Your task to perform on an android device: Add "duracell triple a" to the cart on bestbuy, then select checkout. Image 0: 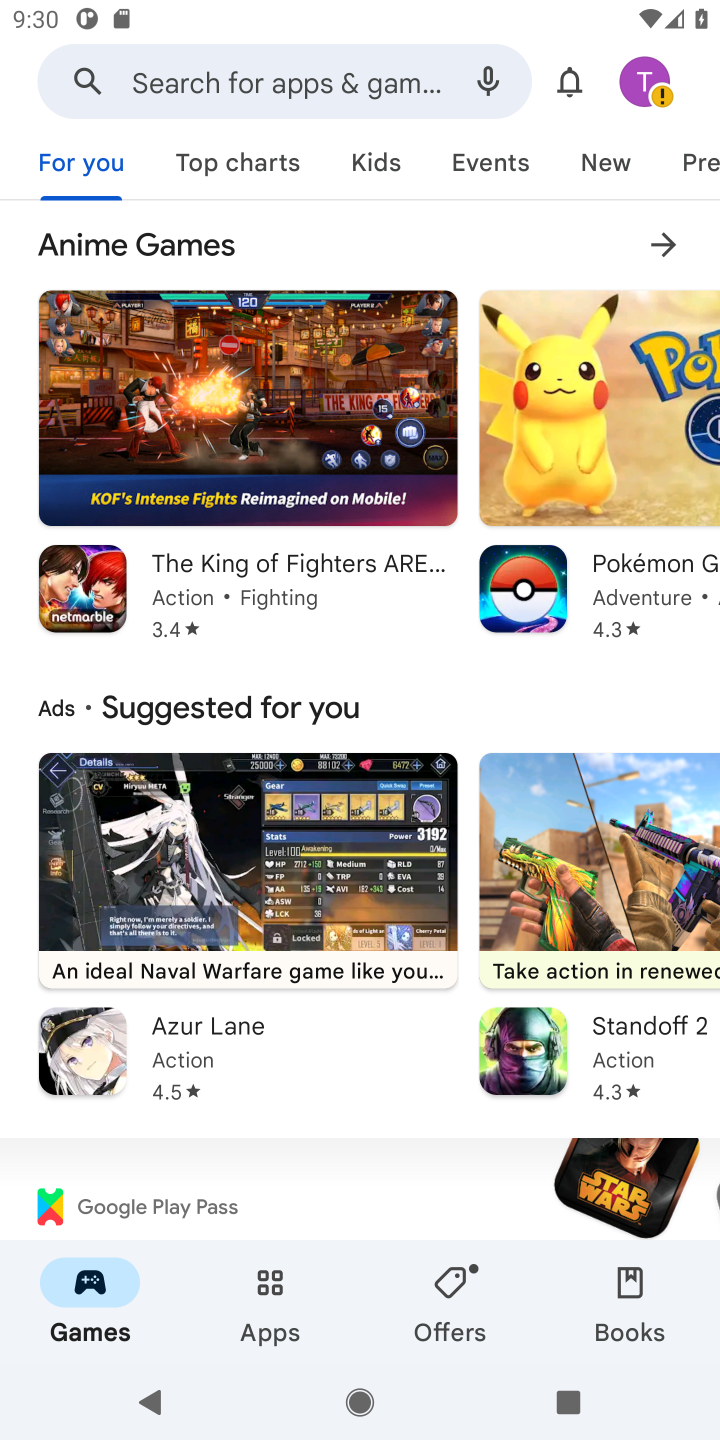
Step 0: press home button
Your task to perform on an android device: Add "duracell triple a" to the cart on bestbuy, then select checkout. Image 1: 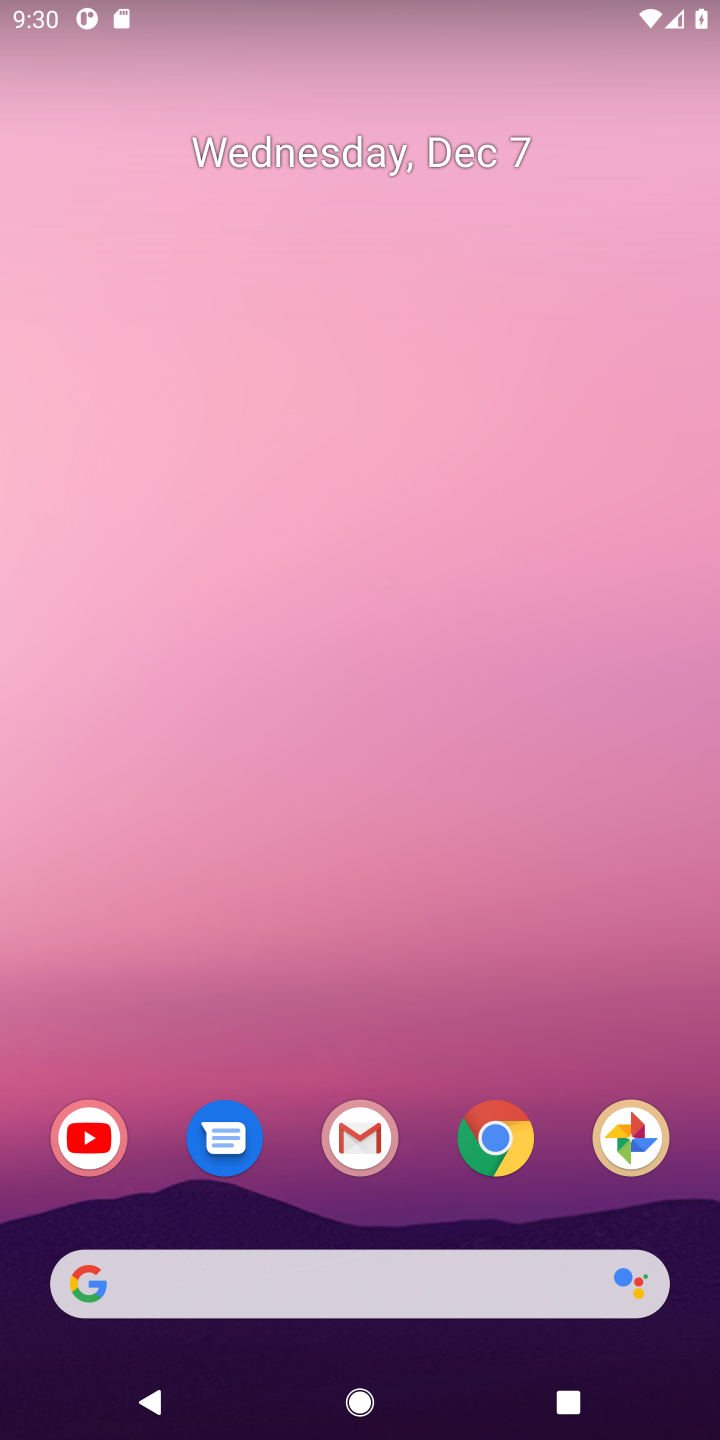
Step 1: click (134, 1283)
Your task to perform on an android device: Add "duracell triple a" to the cart on bestbuy, then select checkout. Image 2: 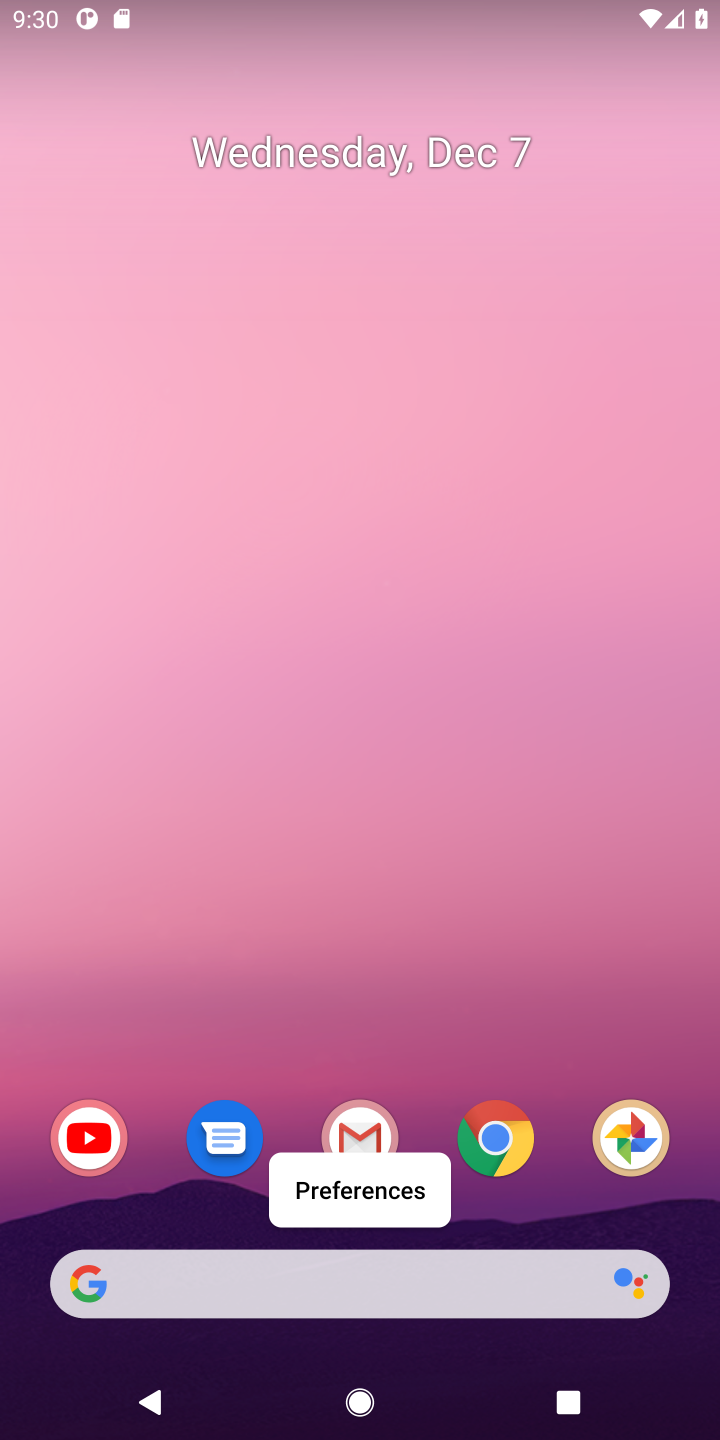
Step 2: click (114, 1286)
Your task to perform on an android device: Add "duracell triple a" to the cart on bestbuy, then select checkout. Image 3: 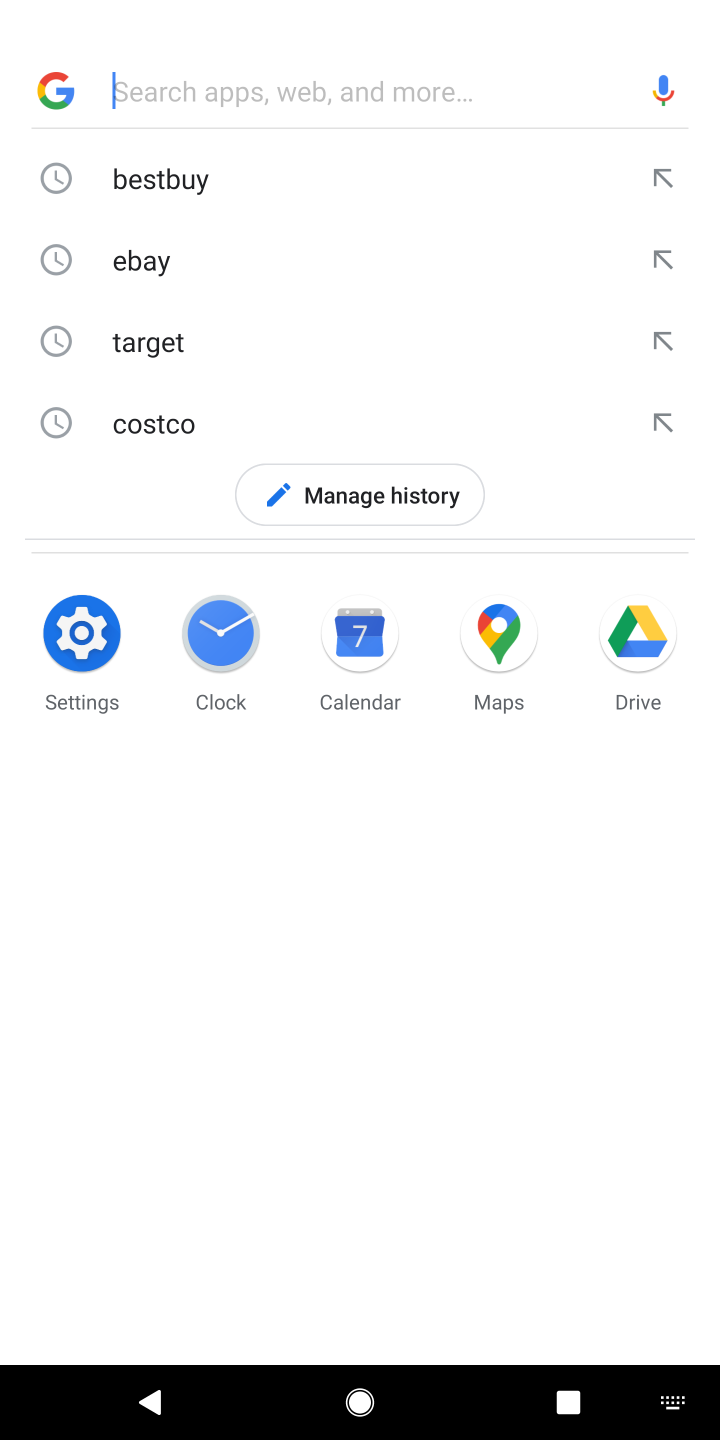
Step 3: type "bestbuy"
Your task to perform on an android device: Add "duracell triple a" to the cart on bestbuy, then select checkout. Image 4: 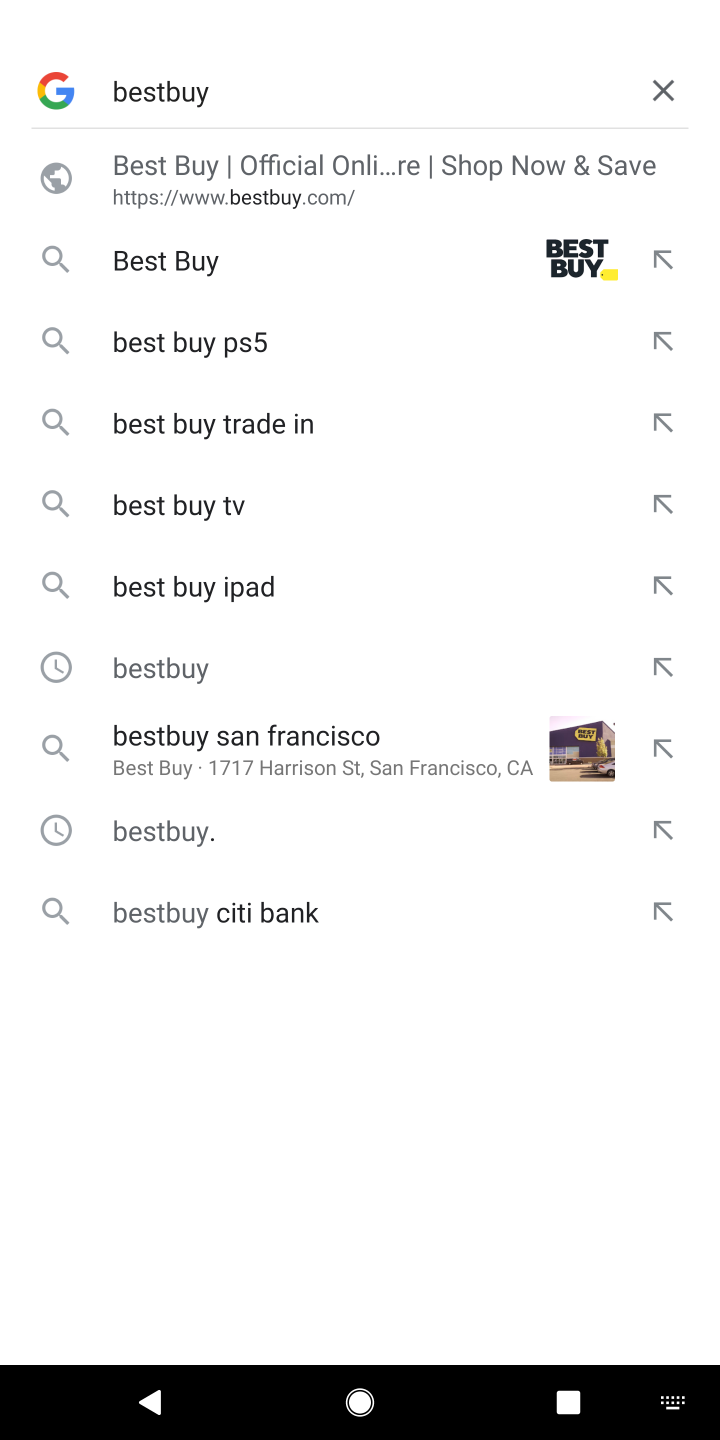
Step 4: press enter
Your task to perform on an android device: Add "duracell triple a" to the cart on bestbuy, then select checkout. Image 5: 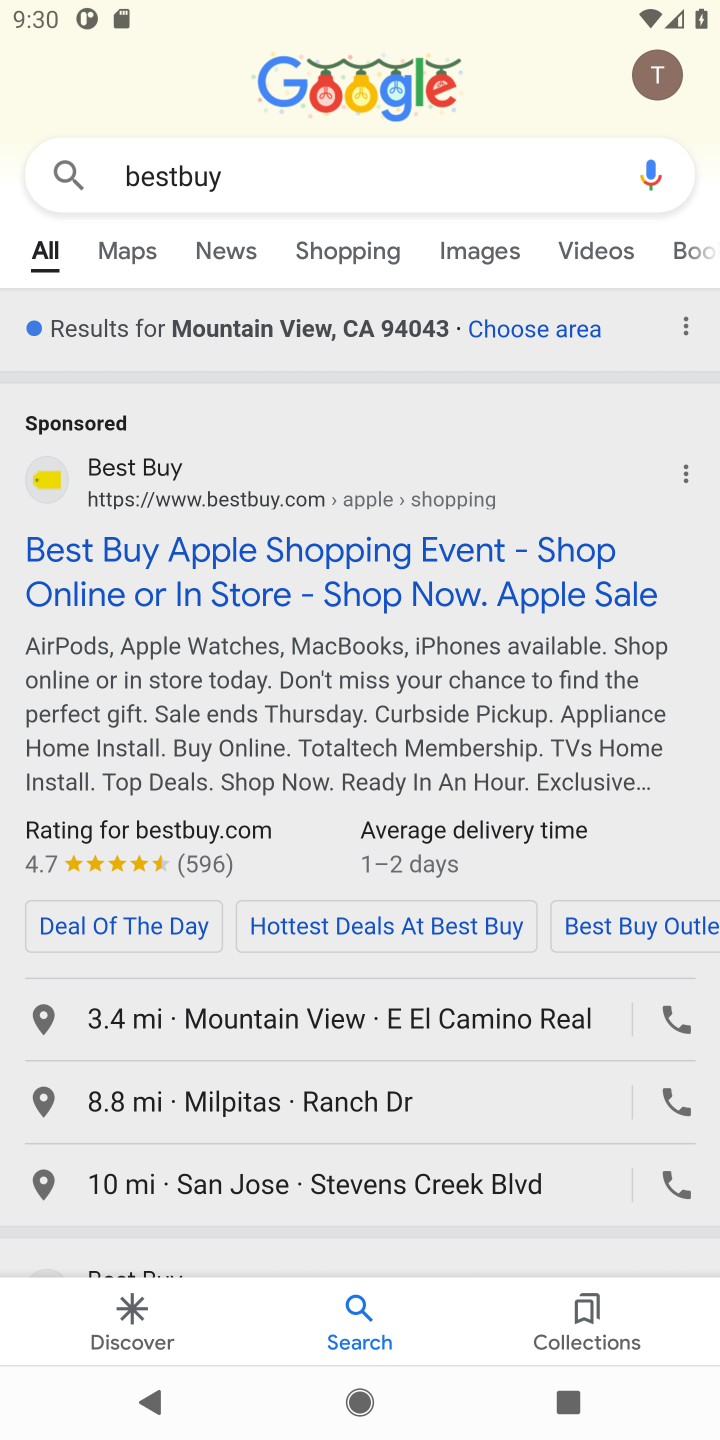
Step 5: click (195, 553)
Your task to perform on an android device: Add "duracell triple a" to the cart on bestbuy, then select checkout. Image 6: 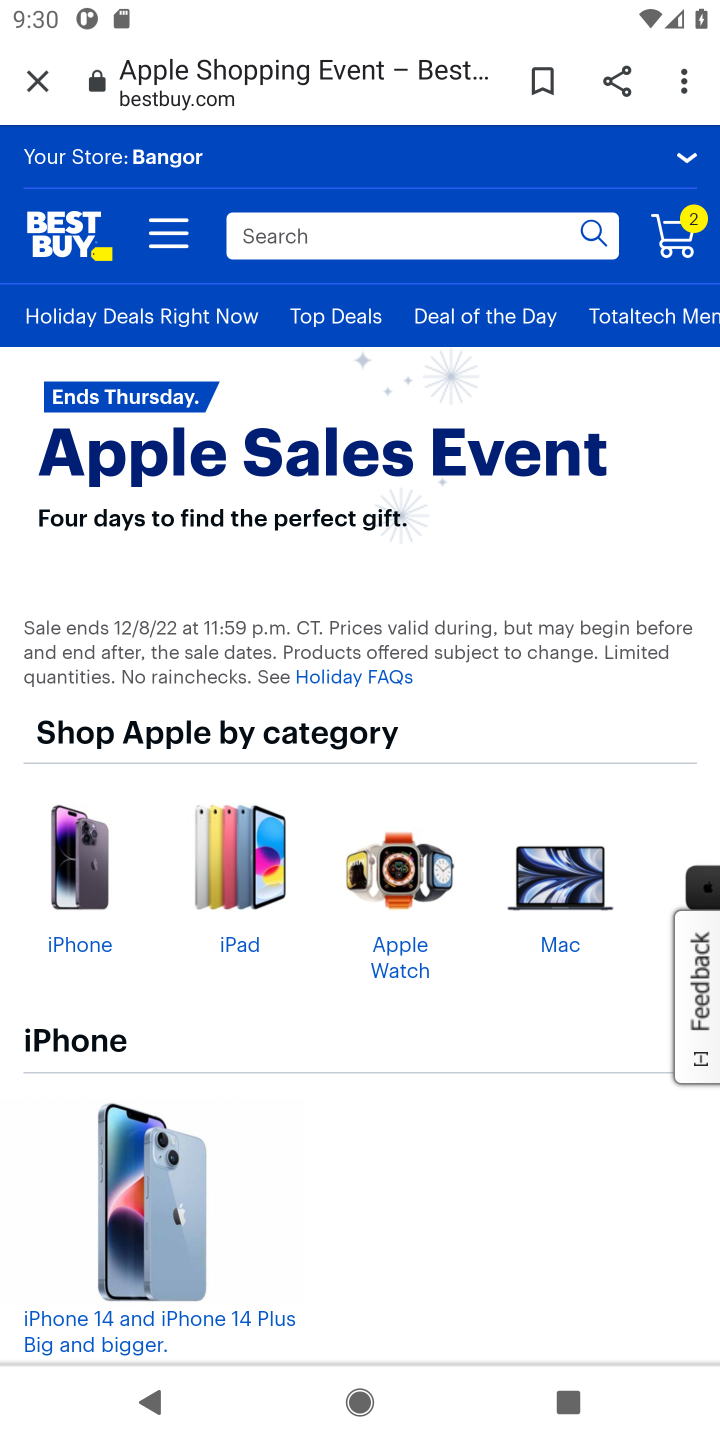
Step 6: click (286, 234)
Your task to perform on an android device: Add "duracell triple a" to the cart on bestbuy, then select checkout. Image 7: 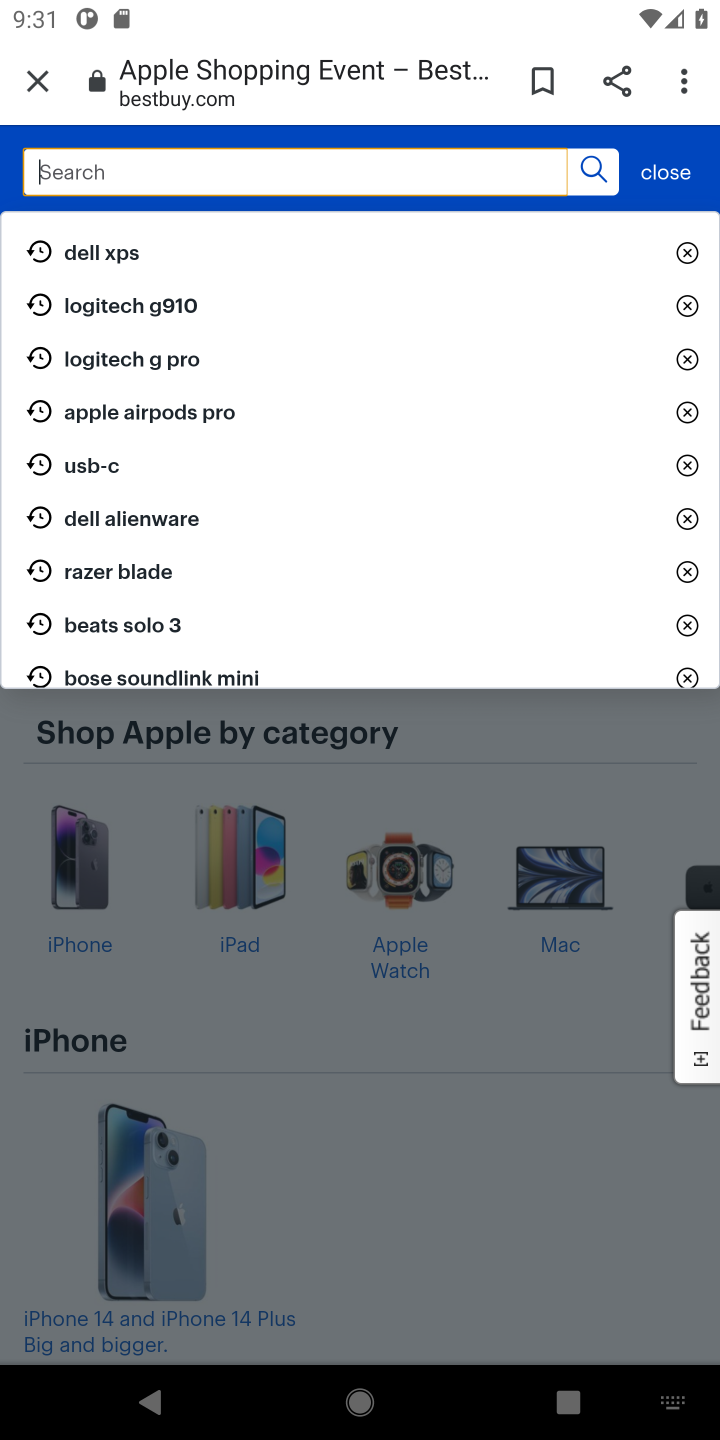
Step 7: press enter
Your task to perform on an android device: Add "duracell triple a" to the cart on bestbuy, then select checkout. Image 8: 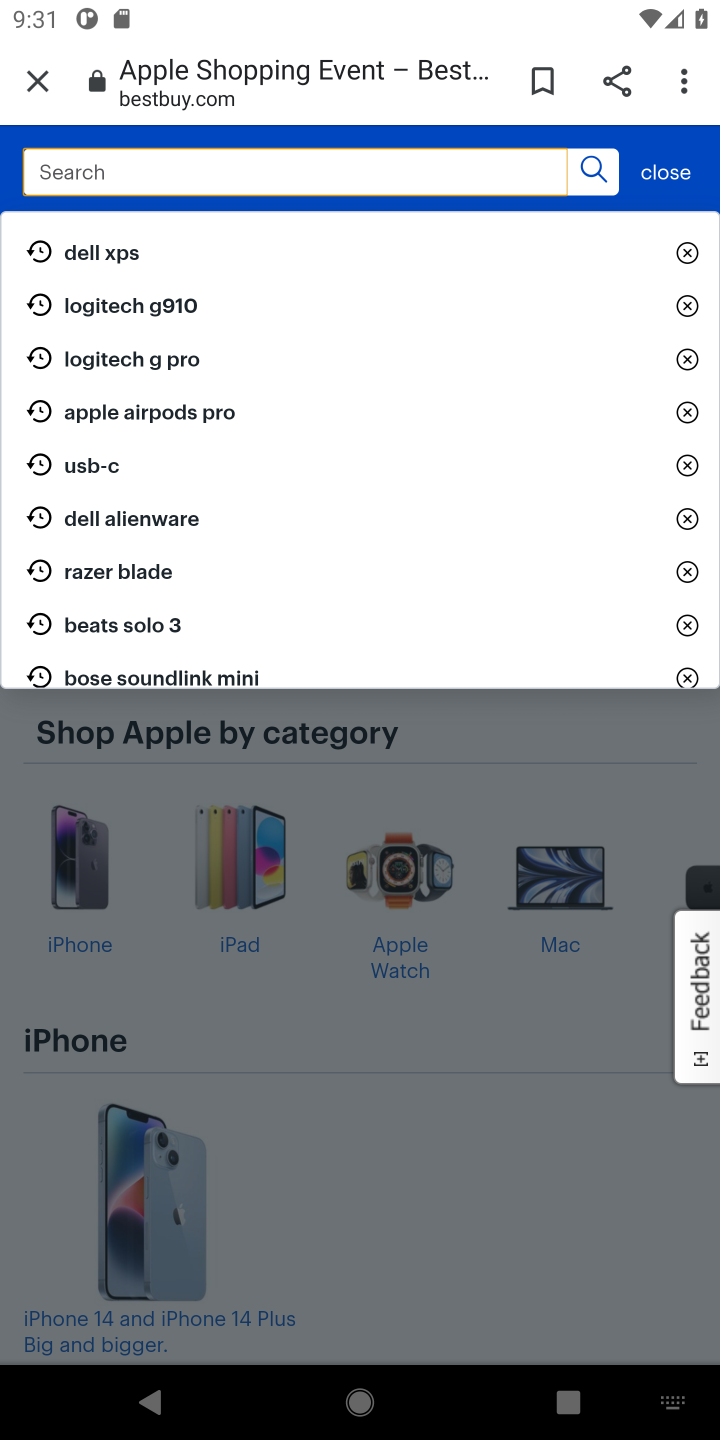
Step 8: type "duracell triple a"
Your task to perform on an android device: Add "duracell triple a" to the cart on bestbuy, then select checkout. Image 9: 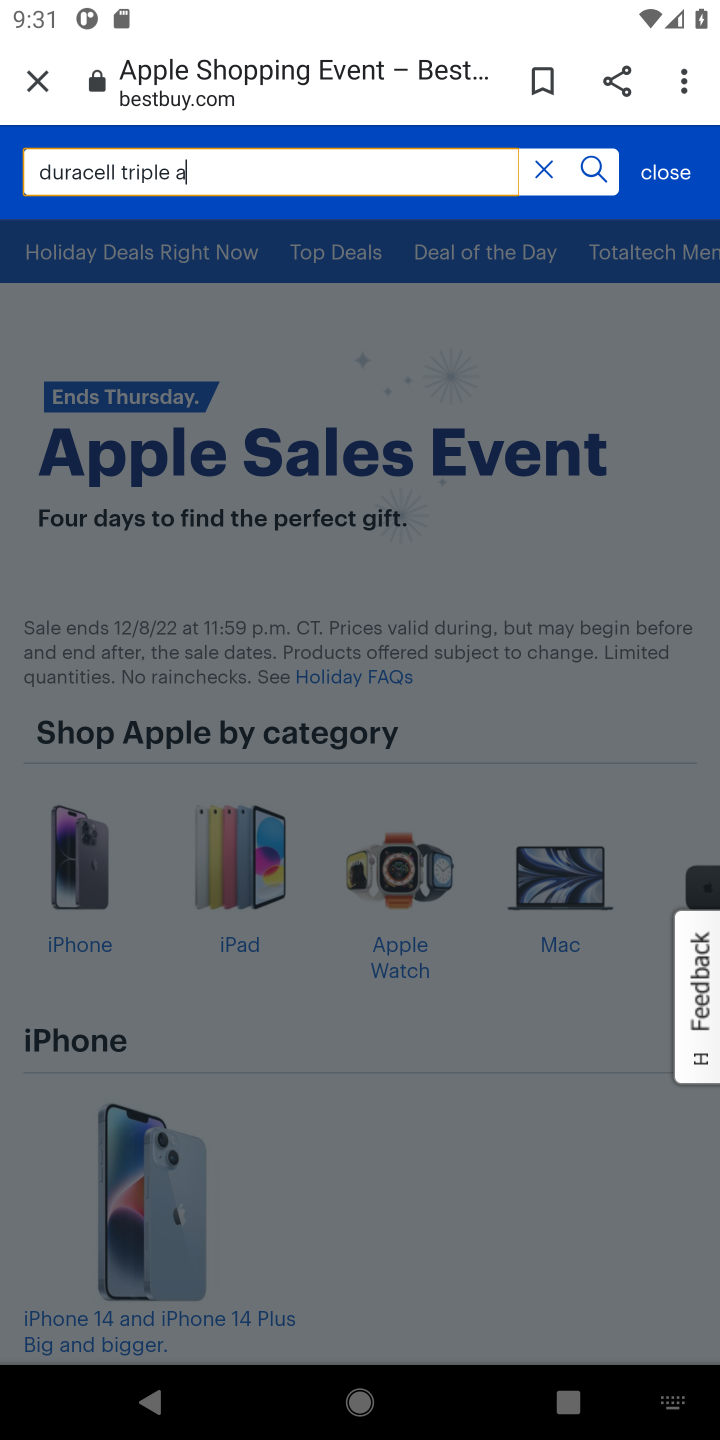
Step 9: press enter
Your task to perform on an android device: Add "duracell triple a" to the cart on bestbuy, then select checkout. Image 10: 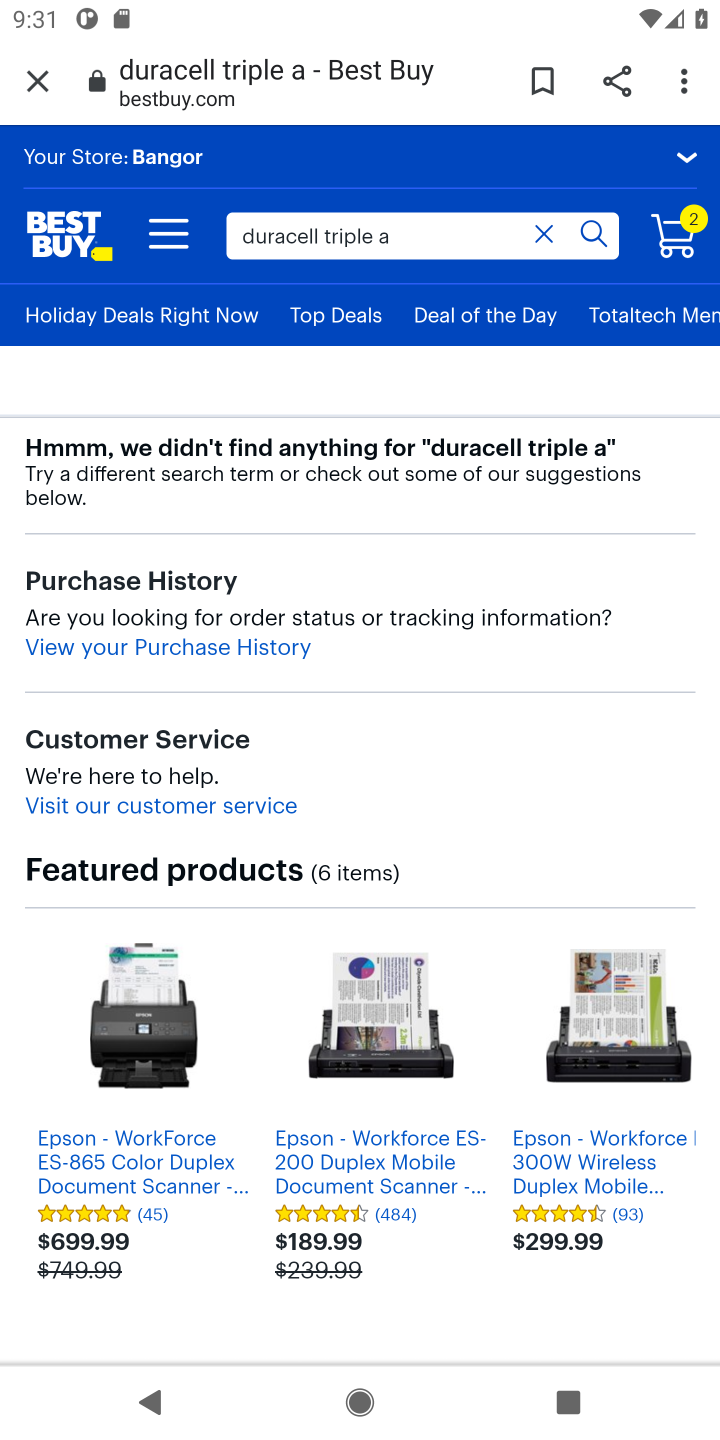
Step 10: task complete